Your task to perform on an android device: turn off airplane mode Image 0: 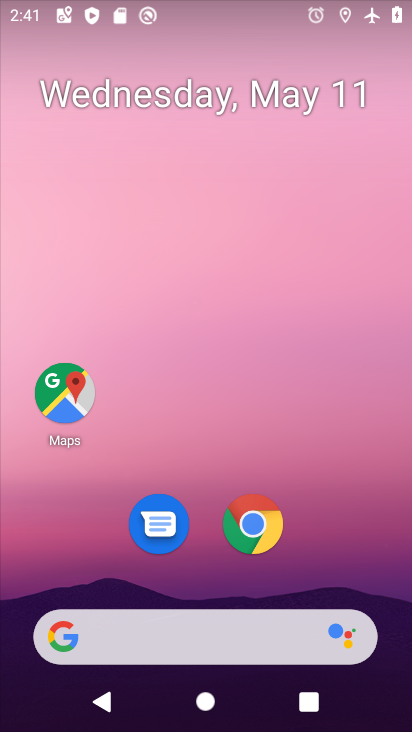
Step 0: drag from (355, 517) to (393, 29)
Your task to perform on an android device: turn off airplane mode Image 1: 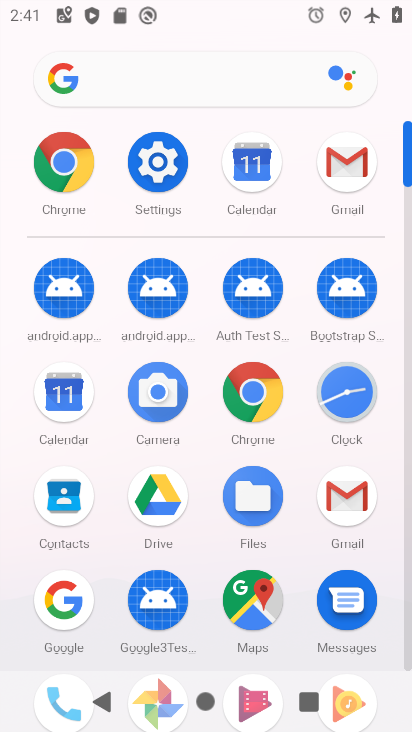
Step 1: click (165, 171)
Your task to perform on an android device: turn off airplane mode Image 2: 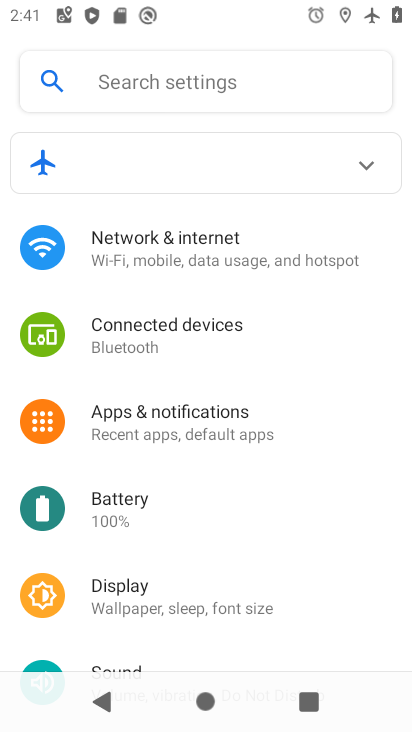
Step 2: click (181, 231)
Your task to perform on an android device: turn off airplane mode Image 3: 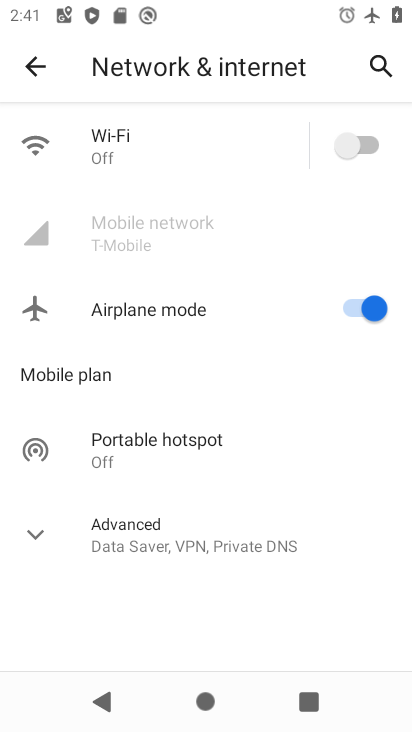
Step 3: click (345, 308)
Your task to perform on an android device: turn off airplane mode Image 4: 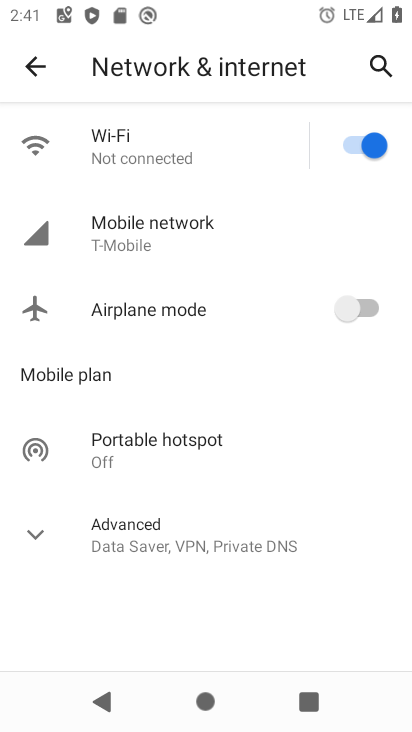
Step 4: task complete